Your task to perform on an android device: Open eBay Image 0: 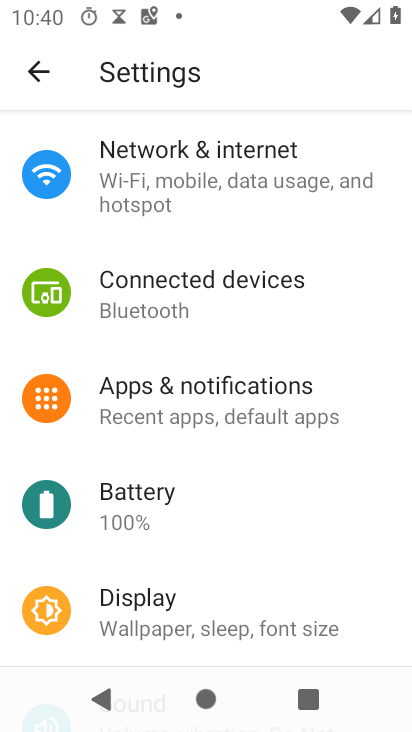
Step 0: press back button
Your task to perform on an android device: Open eBay Image 1: 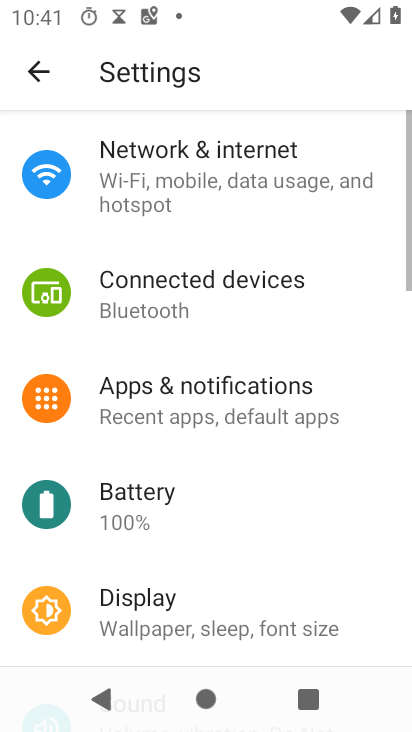
Step 1: press back button
Your task to perform on an android device: Open eBay Image 2: 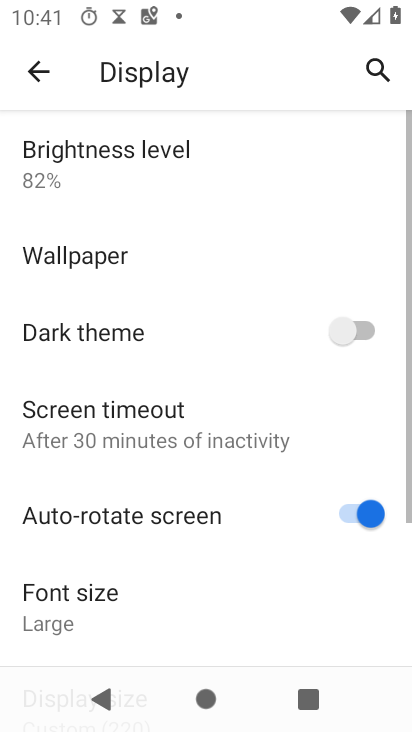
Step 2: press back button
Your task to perform on an android device: Open eBay Image 3: 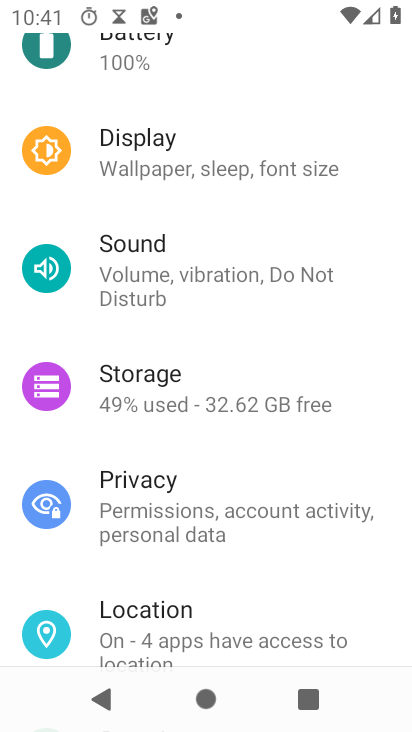
Step 3: press home button
Your task to perform on an android device: Open eBay Image 4: 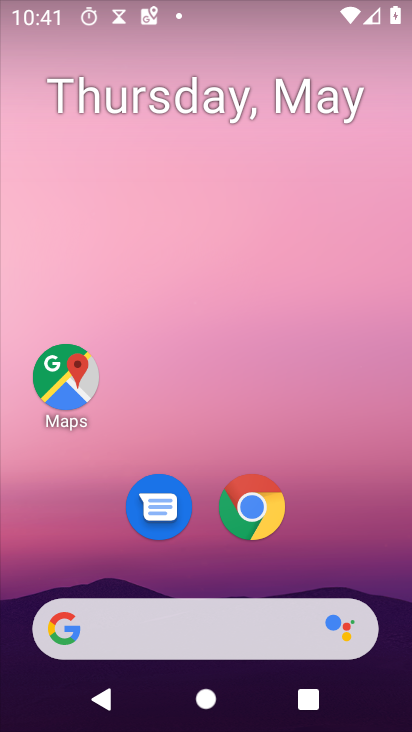
Step 4: click (246, 505)
Your task to perform on an android device: Open eBay Image 5: 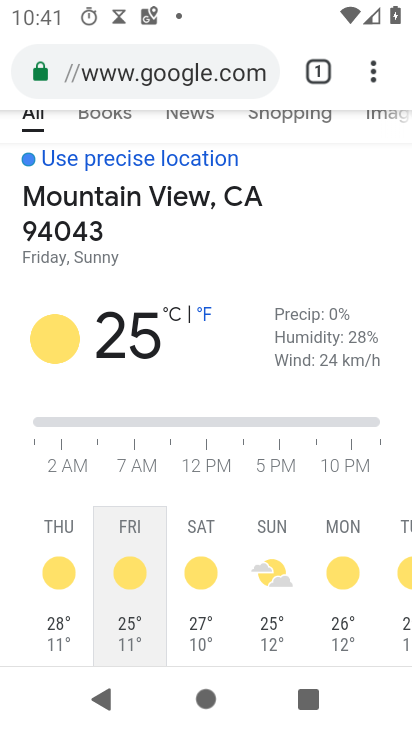
Step 5: click (191, 77)
Your task to perform on an android device: Open eBay Image 6: 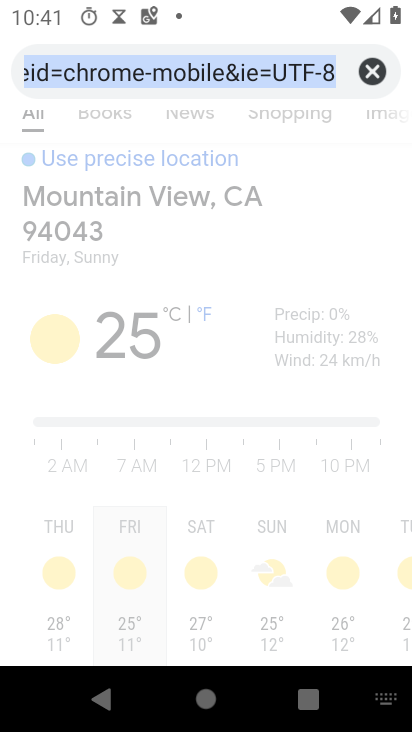
Step 6: click (364, 64)
Your task to perform on an android device: Open eBay Image 7: 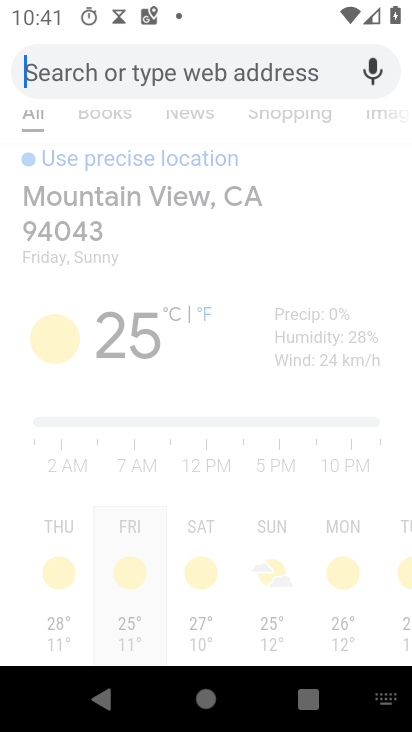
Step 7: type " eBay"
Your task to perform on an android device: Open eBay Image 8: 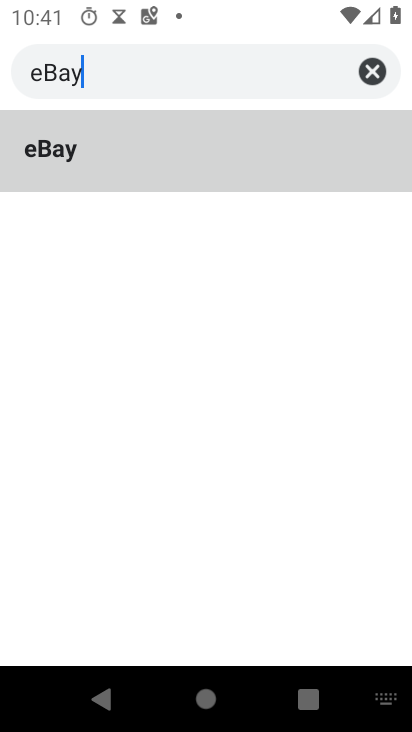
Step 8: type ""
Your task to perform on an android device: Open eBay Image 9: 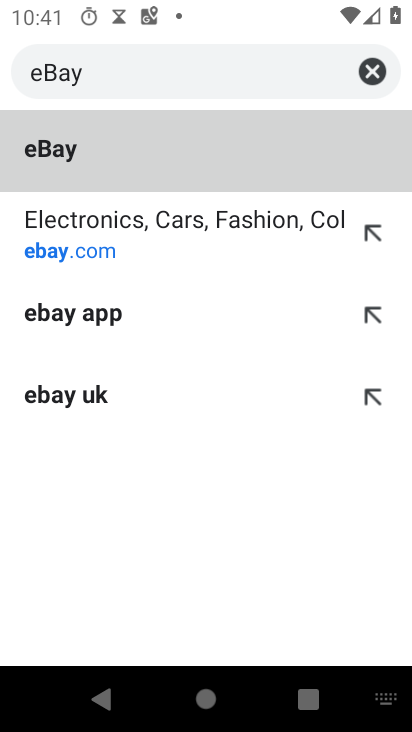
Step 9: click (111, 220)
Your task to perform on an android device: Open eBay Image 10: 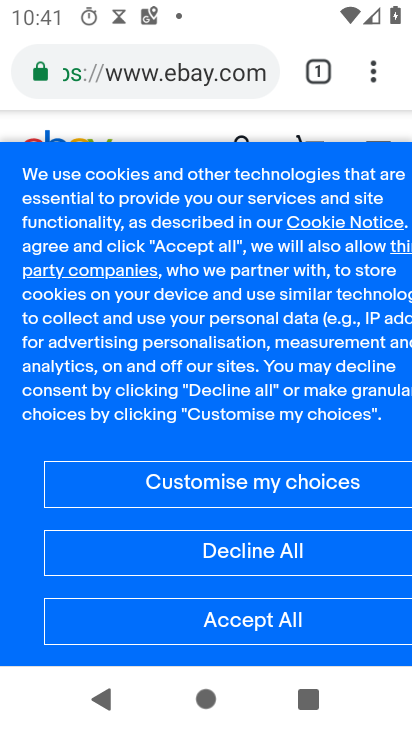
Step 10: task complete